Your task to perform on an android device: What's on my calendar tomorrow? Image 0: 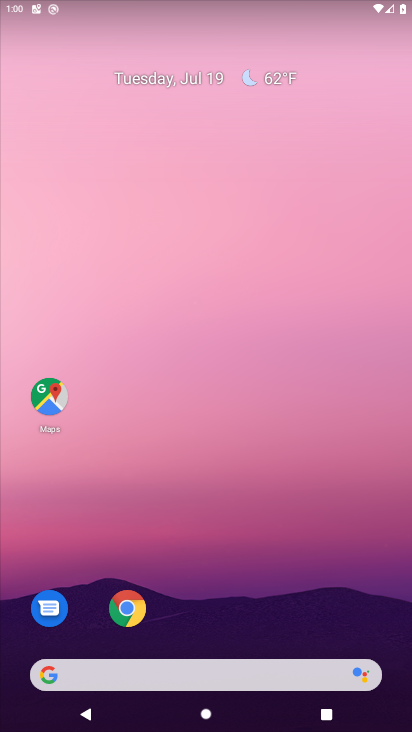
Step 0: drag from (211, 630) to (288, 121)
Your task to perform on an android device: What's on my calendar tomorrow? Image 1: 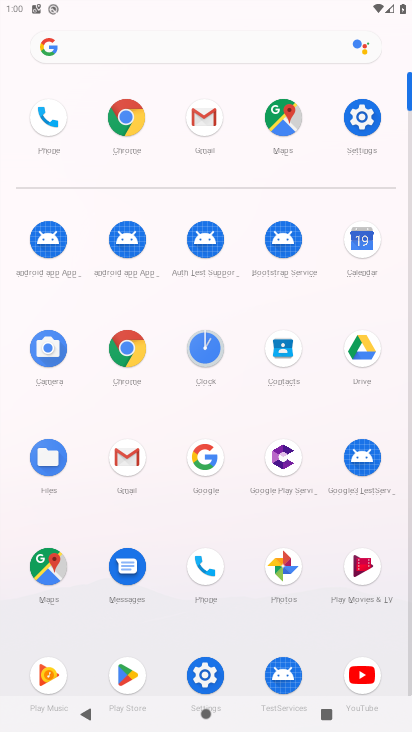
Step 1: click (359, 240)
Your task to perform on an android device: What's on my calendar tomorrow? Image 2: 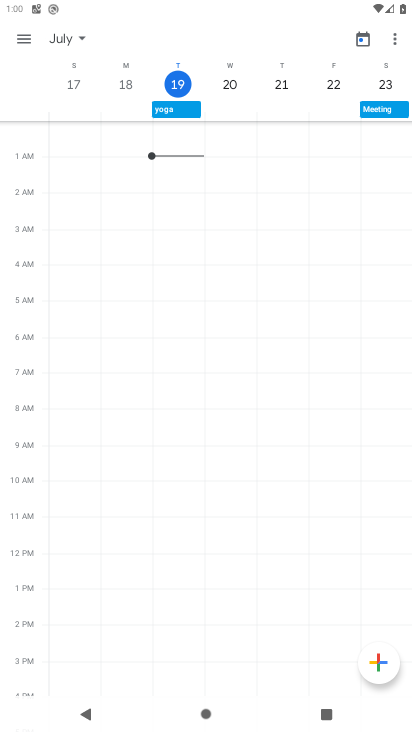
Step 2: click (183, 79)
Your task to perform on an android device: What's on my calendar tomorrow? Image 3: 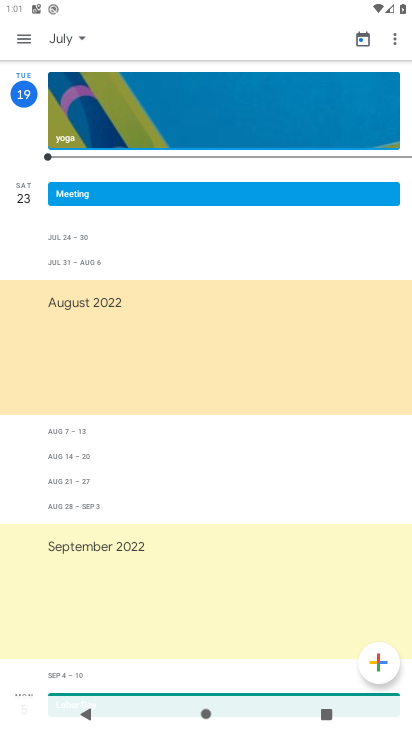
Step 3: click (72, 37)
Your task to perform on an android device: What's on my calendar tomorrow? Image 4: 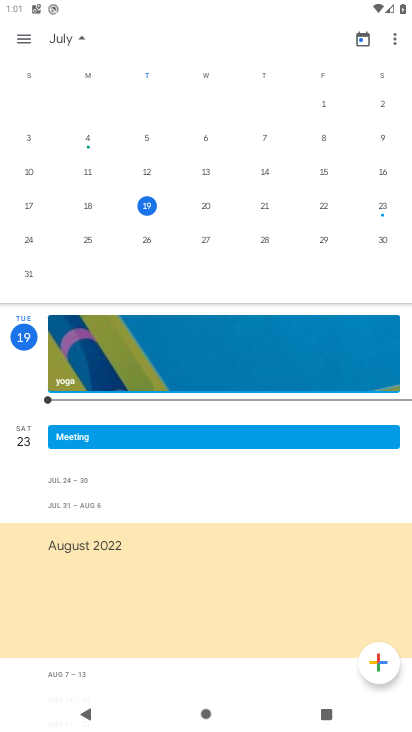
Step 4: click (204, 205)
Your task to perform on an android device: What's on my calendar tomorrow? Image 5: 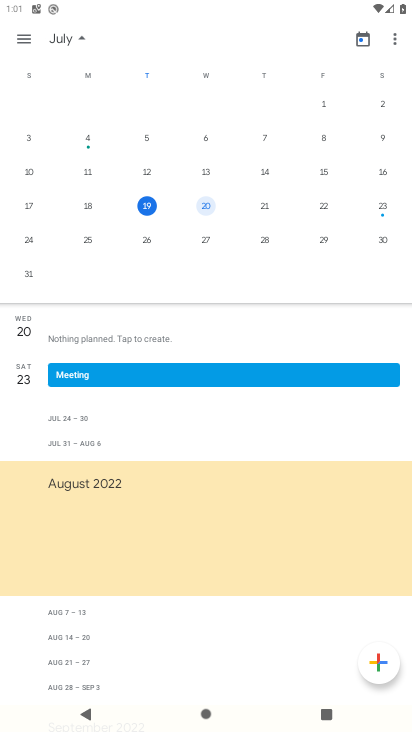
Step 5: click (28, 328)
Your task to perform on an android device: What's on my calendar tomorrow? Image 6: 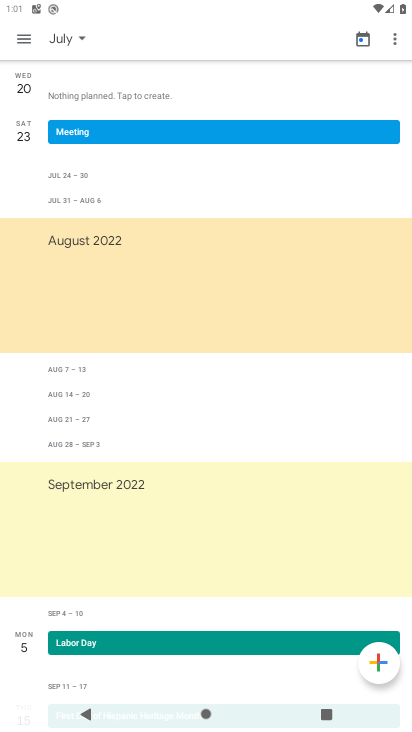
Step 6: click (20, 76)
Your task to perform on an android device: What's on my calendar tomorrow? Image 7: 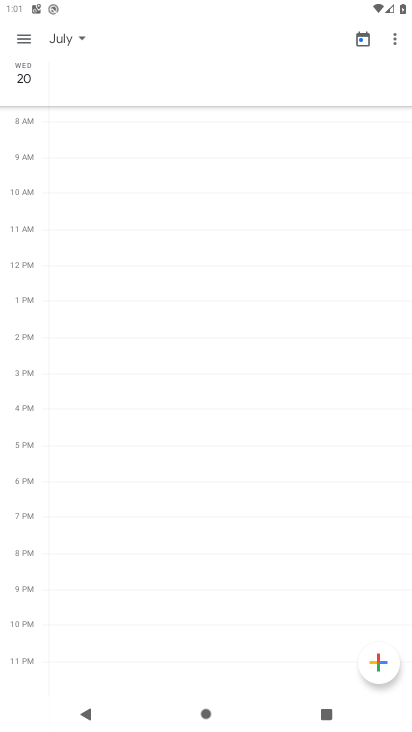
Step 7: task complete